Your task to perform on an android device: Show me popular videos on Youtube Image 0: 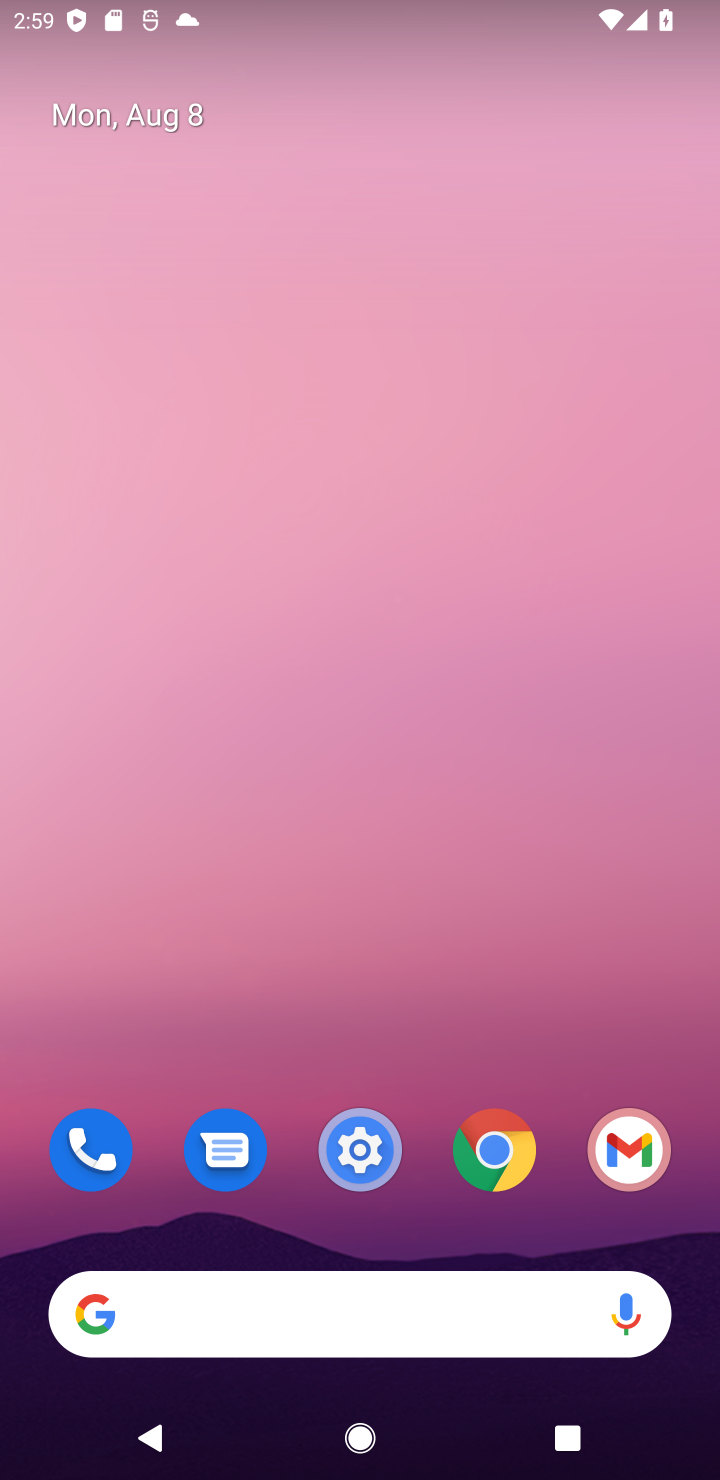
Step 0: drag from (96, 1392) to (311, 450)
Your task to perform on an android device: Show me popular videos on Youtube Image 1: 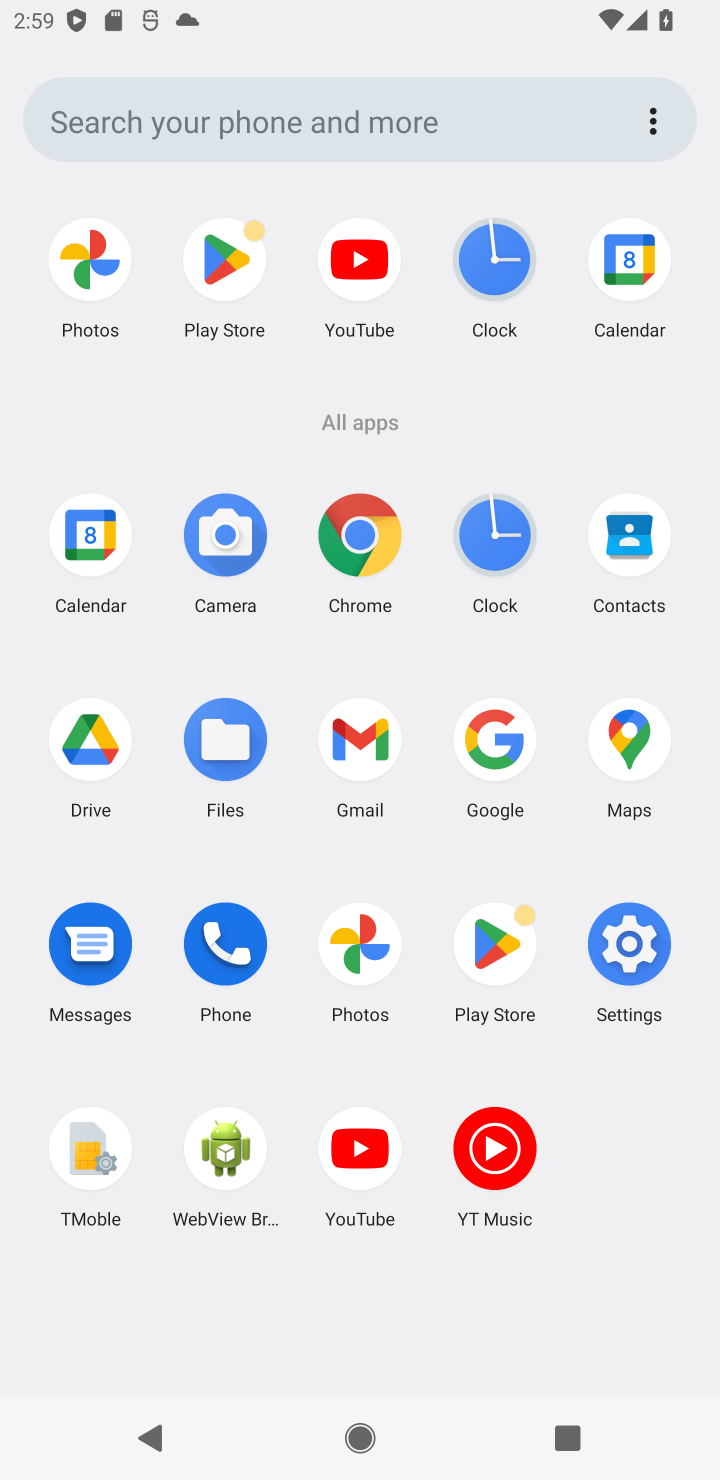
Step 1: click (378, 1150)
Your task to perform on an android device: Show me popular videos on Youtube Image 2: 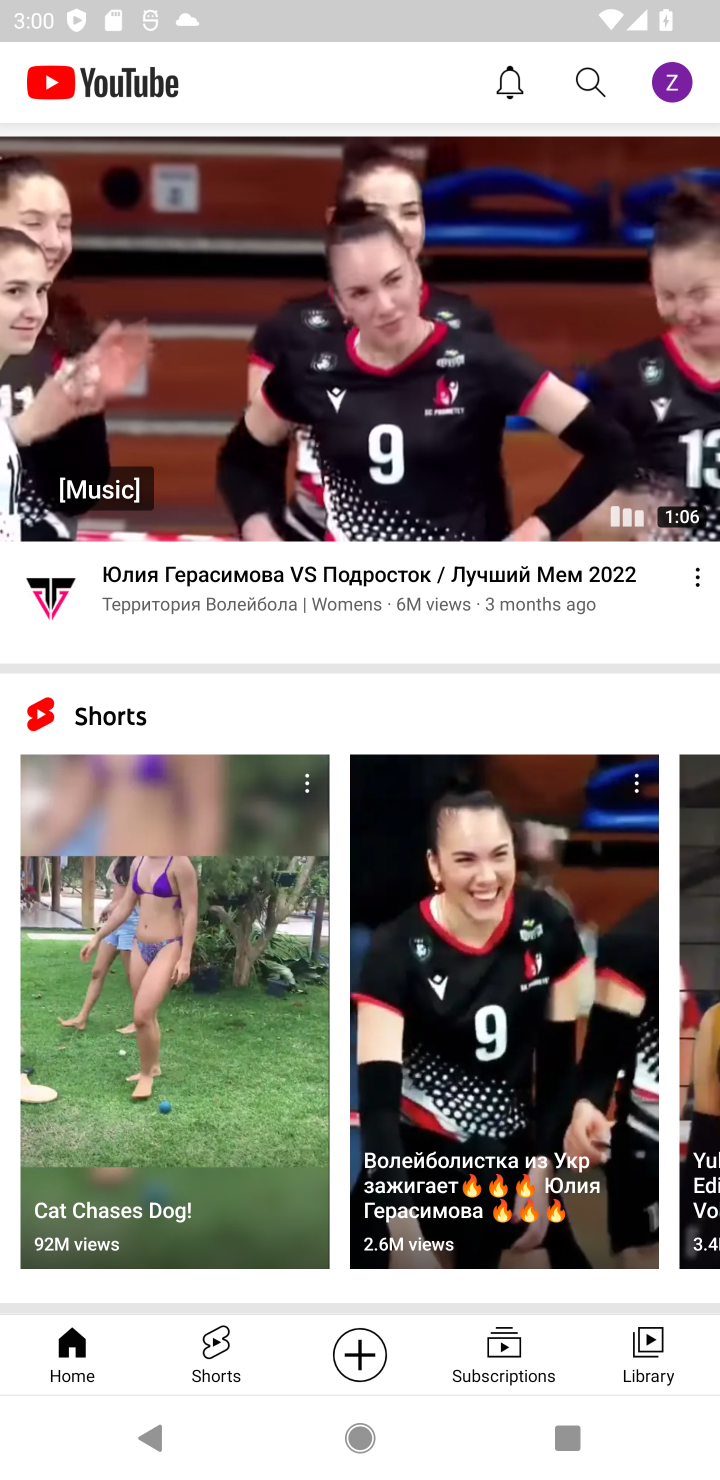
Step 2: click (604, 84)
Your task to perform on an android device: Show me popular videos on Youtube Image 3: 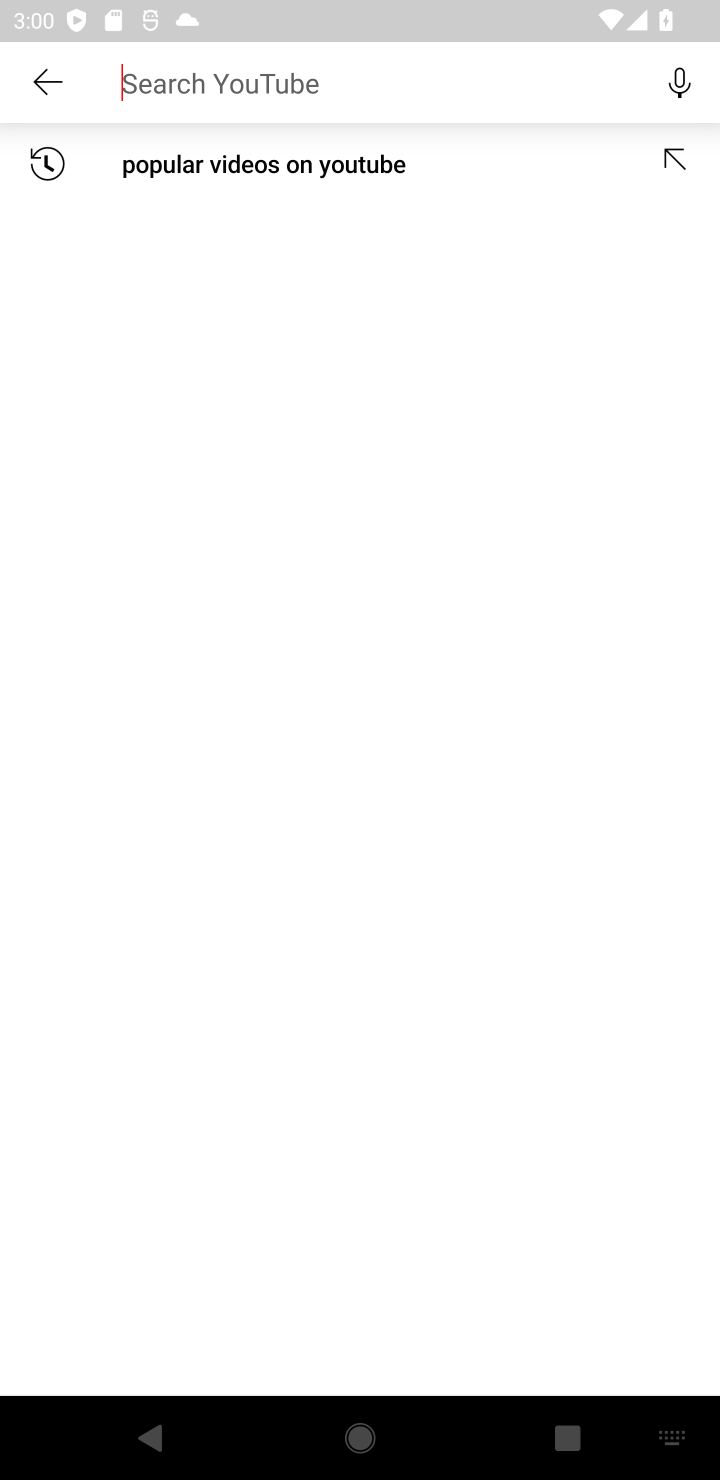
Step 3: click (265, 160)
Your task to perform on an android device: Show me popular videos on Youtube Image 4: 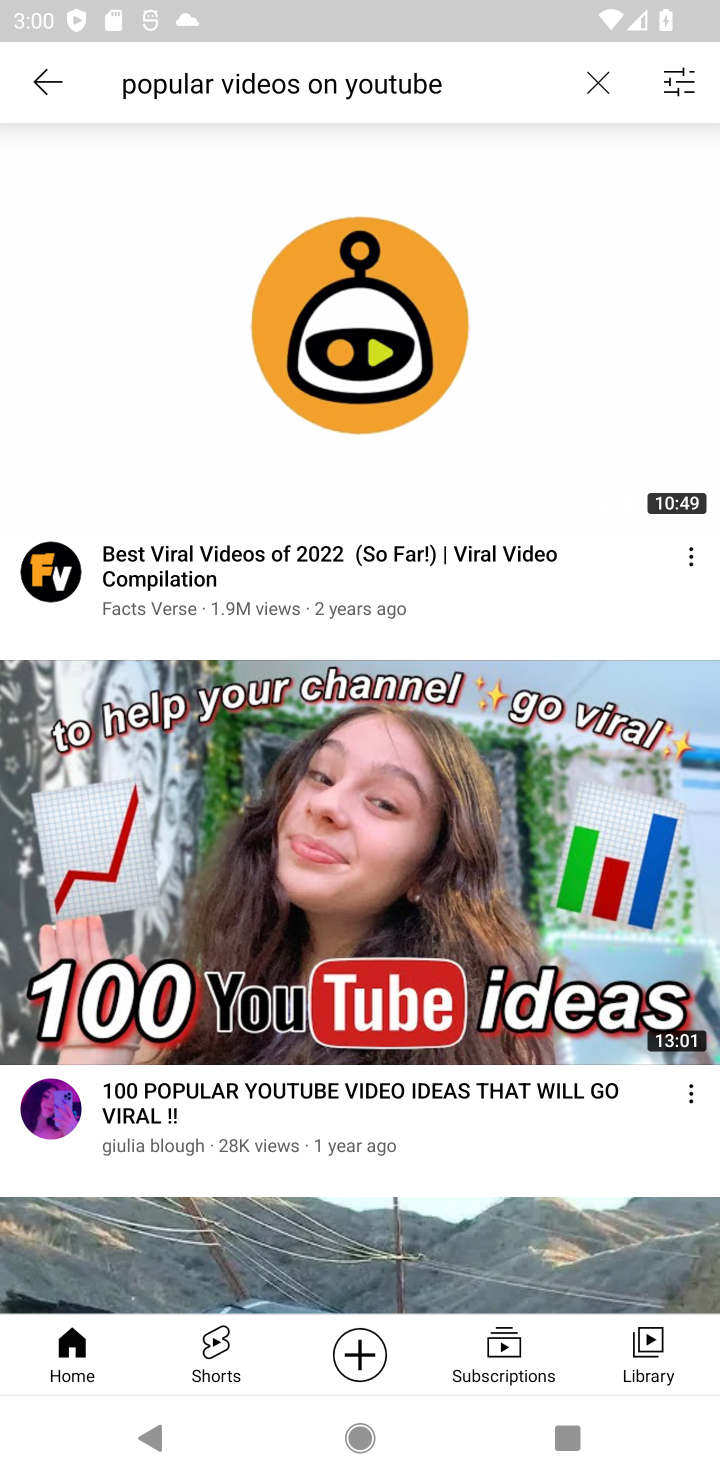
Step 4: task complete